Your task to perform on an android device: Open Google Chrome and click the shortcut for Amazon.com Image 0: 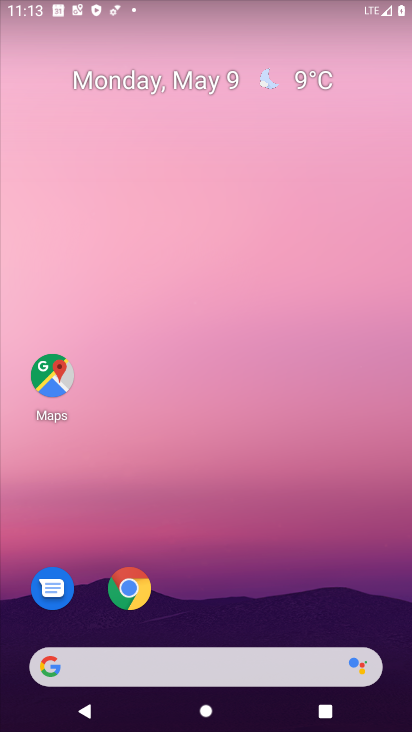
Step 0: press home button
Your task to perform on an android device: Open Google Chrome and click the shortcut for Amazon.com Image 1: 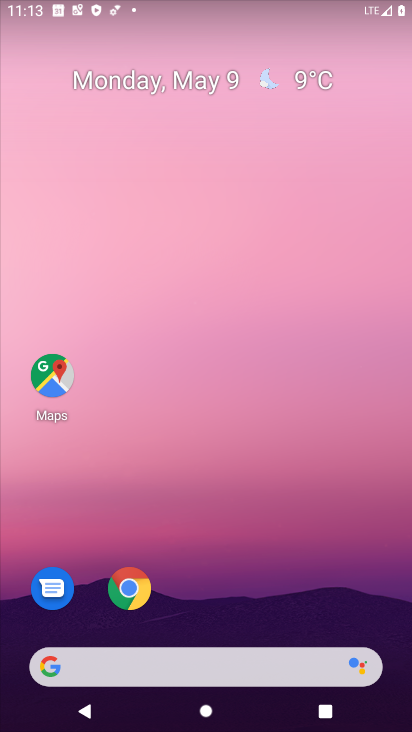
Step 1: drag from (163, 664) to (310, 109)
Your task to perform on an android device: Open Google Chrome and click the shortcut for Amazon.com Image 2: 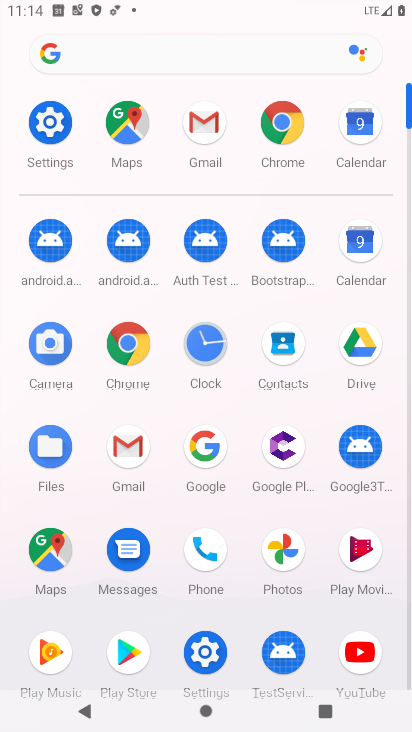
Step 2: click (278, 127)
Your task to perform on an android device: Open Google Chrome and click the shortcut for Amazon.com Image 3: 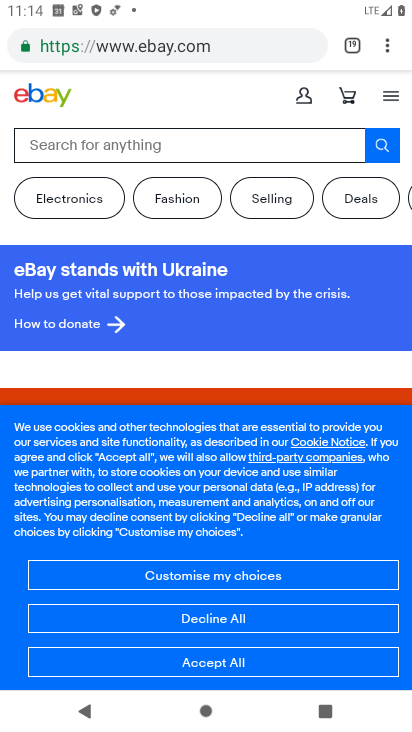
Step 3: drag from (386, 48) to (327, 91)
Your task to perform on an android device: Open Google Chrome and click the shortcut for Amazon.com Image 4: 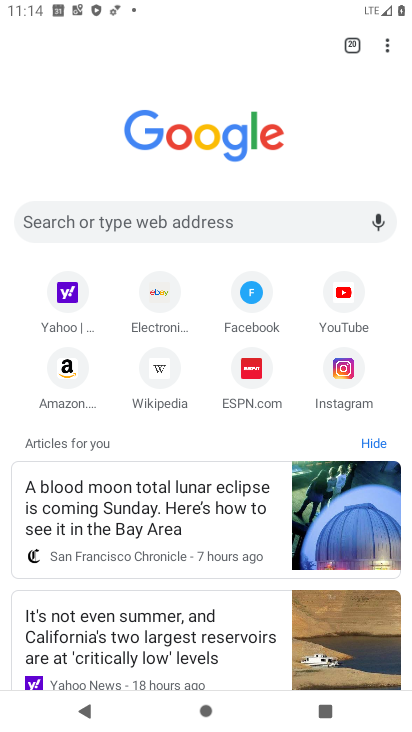
Step 4: click (58, 371)
Your task to perform on an android device: Open Google Chrome and click the shortcut for Amazon.com Image 5: 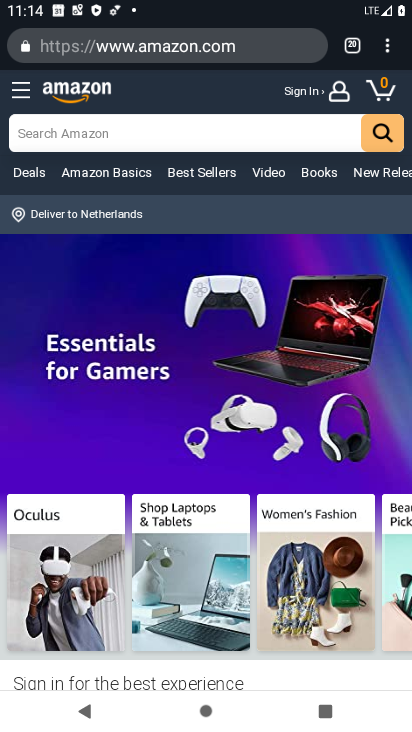
Step 5: task complete